Your task to perform on an android device: turn off picture-in-picture Image 0: 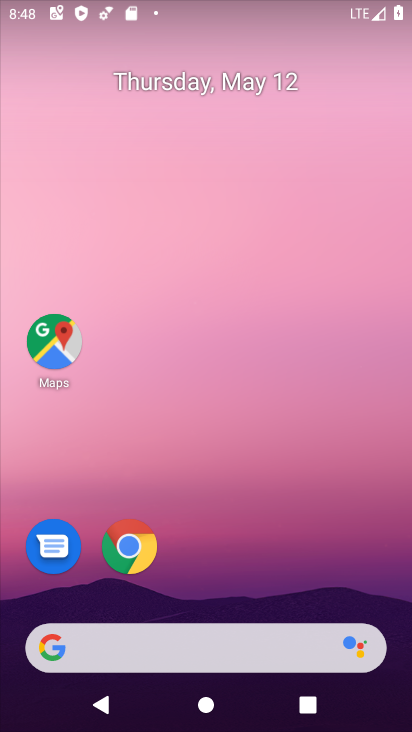
Step 0: drag from (202, 614) to (326, 43)
Your task to perform on an android device: turn off picture-in-picture Image 1: 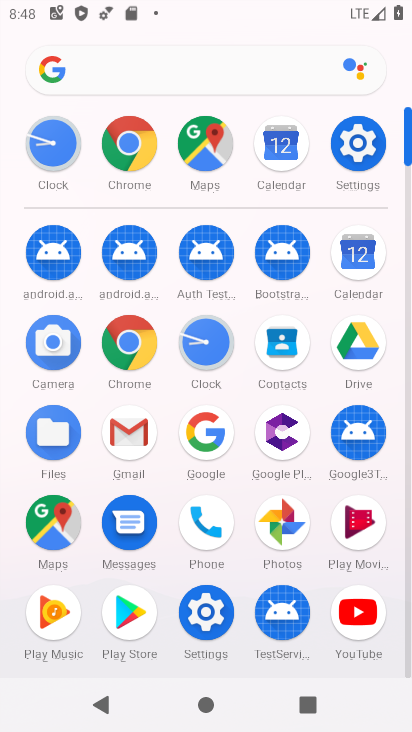
Step 1: click (348, 149)
Your task to perform on an android device: turn off picture-in-picture Image 2: 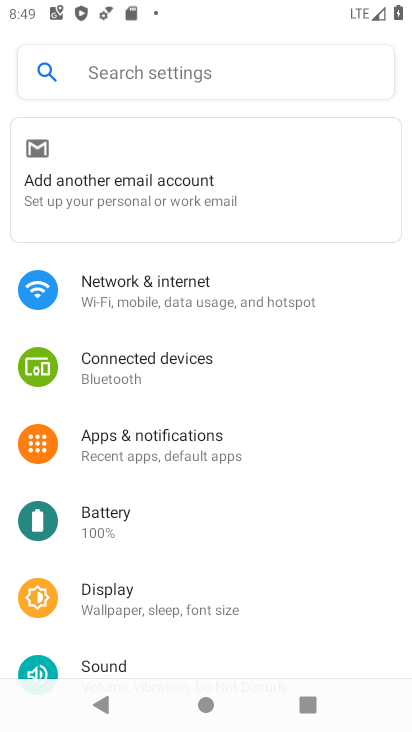
Step 2: drag from (155, 617) to (241, 307)
Your task to perform on an android device: turn off picture-in-picture Image 3: 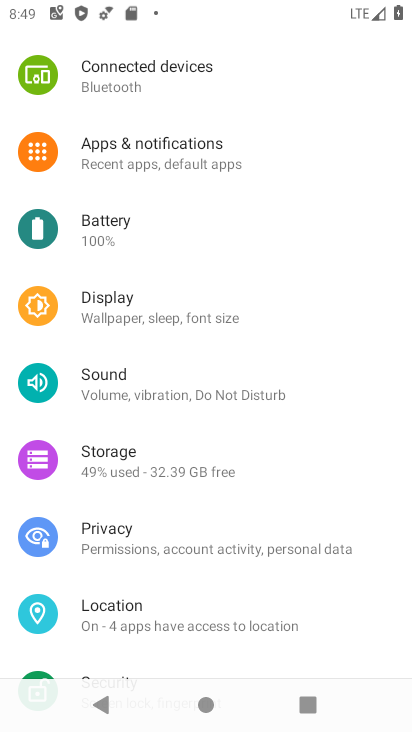
Step 3: click (160, 150)
Your task to perform on an android device: turn off picture-in-picture Image 4: 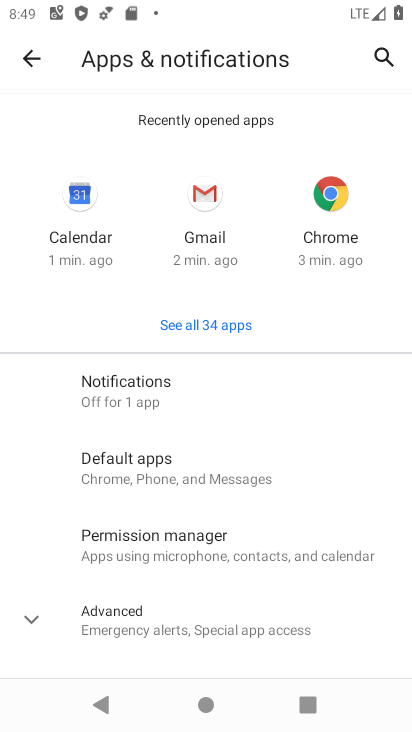
Step 4: click (144, 401)
Your task to perform on an android device: turn off picture-in-picture Image 5: 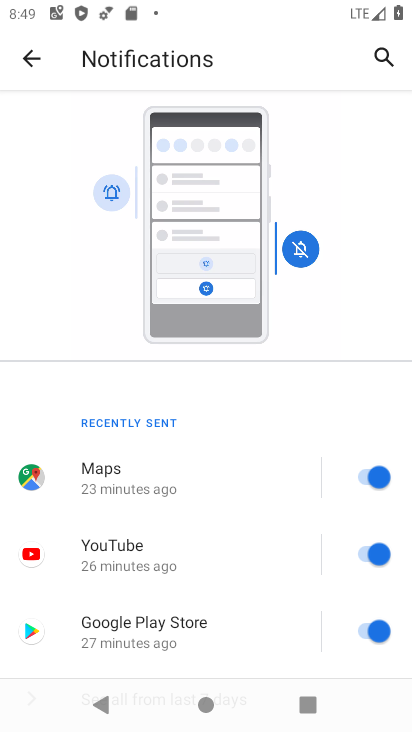
Step 5: click (31, 56)
Your task to perform on an android device: turn off picture-in-picture Image 6: 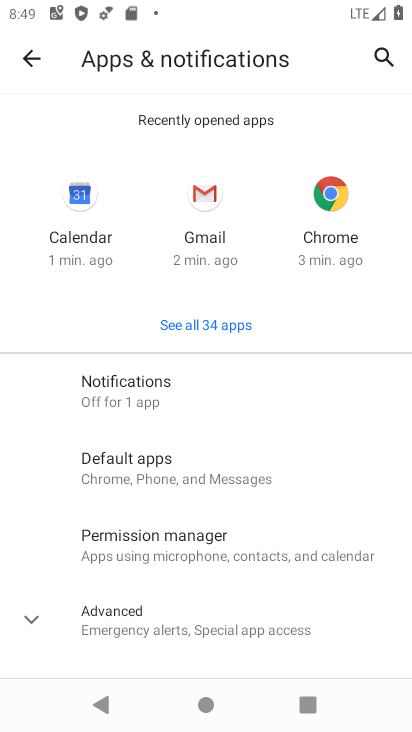
Step 6: drag from (179, 528) to (203, 624)
Your task to perform on an android device: turn off picture-in-picture Image 7: 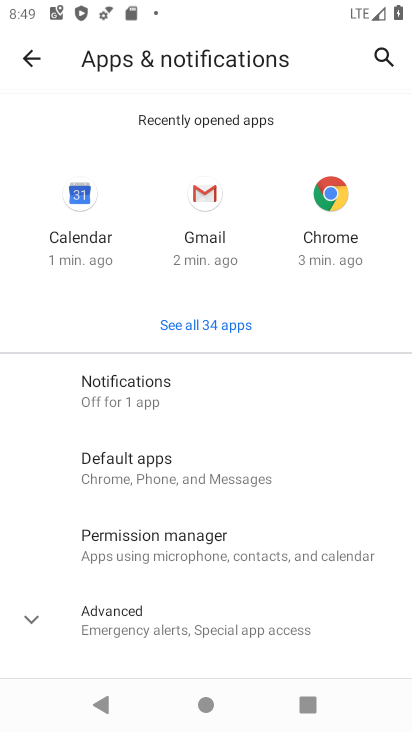
Step 7: click (190, 621)
Your task to perform on an android device: turn off picture-in-picture Image 8: 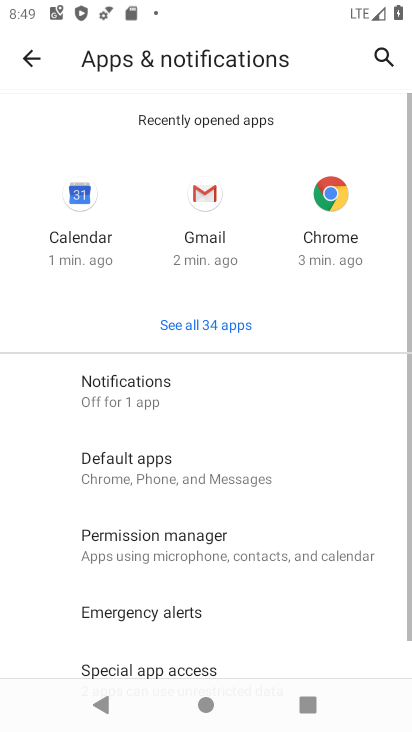
Step 8: drag from (188, 620) to (306, 121)
Your task to perform on an android device: turn off picture-in-picture Image 9: 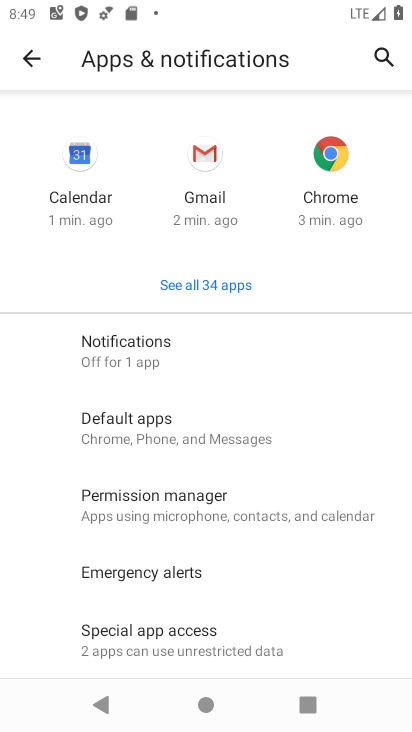
Step 9: click (158, 635)
Your task to perform on an android device: turn off picture-in-picture Image 10: 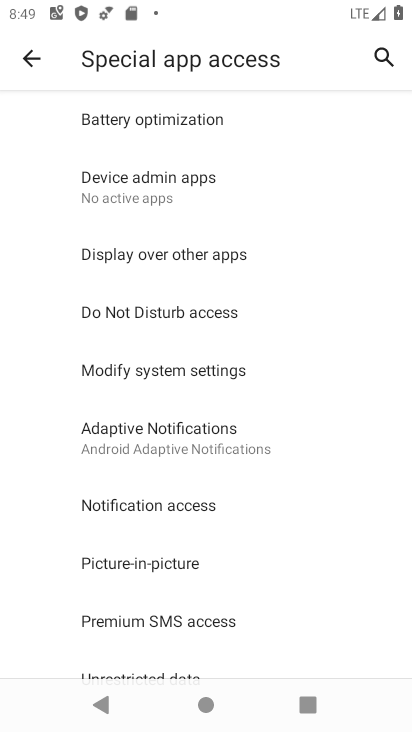
Step 10: click (149, 561)
Your task to perform on an android device: turn off picture-in-picture Image 11: 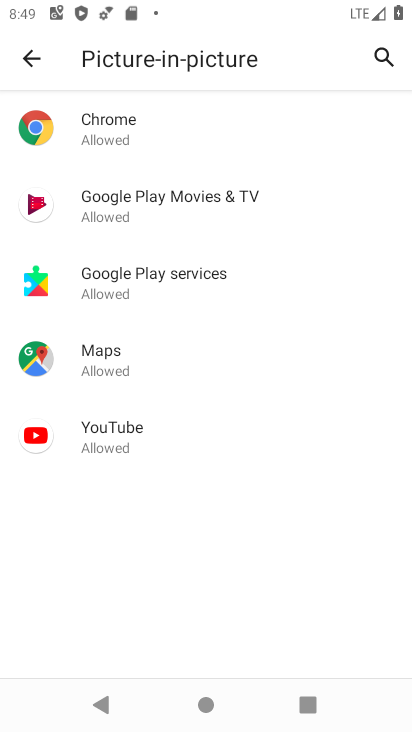
Step 11: click (111, 132)
Your task to perform on an android device: turn off picture-in-picture Image 12: 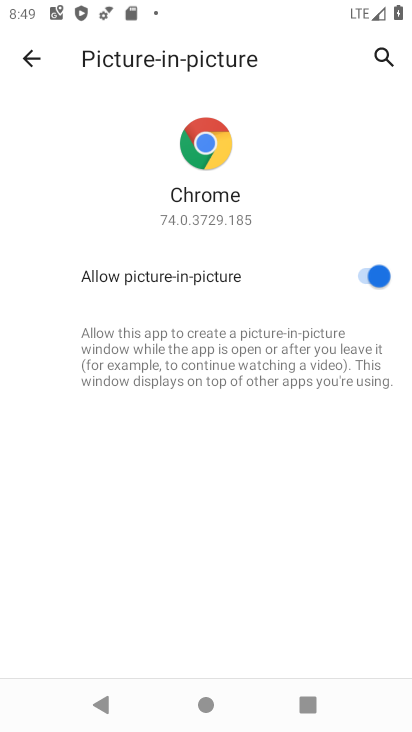
Step 12: click (371, 276)
Your task to perform on an android device: turn off picture-in-picture Image 13: 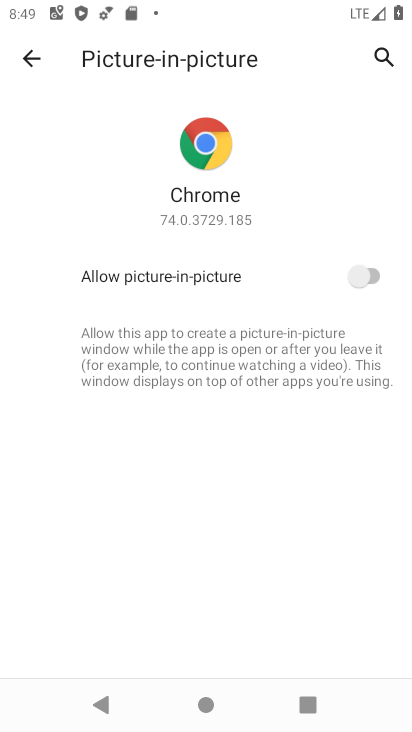
Step 13: task complete